Your task to perform on an android device: Open Google Chrome and click the shortcut for Amazon.com Image 0: 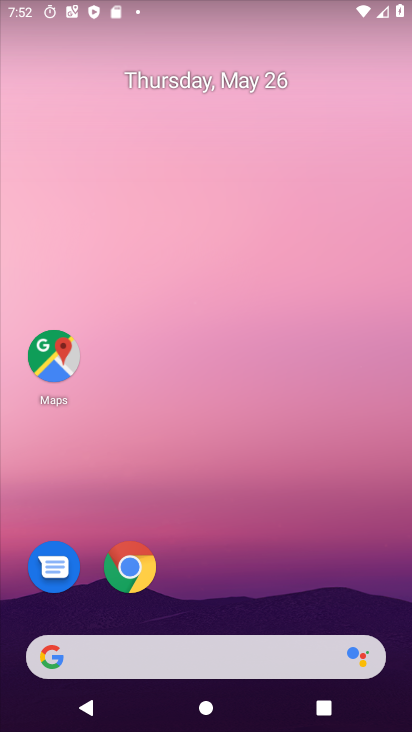
Step 0: press home button
Your task to perform on an android device: Open Google Chrome and click the shortcut for Amazon.com Image 1: 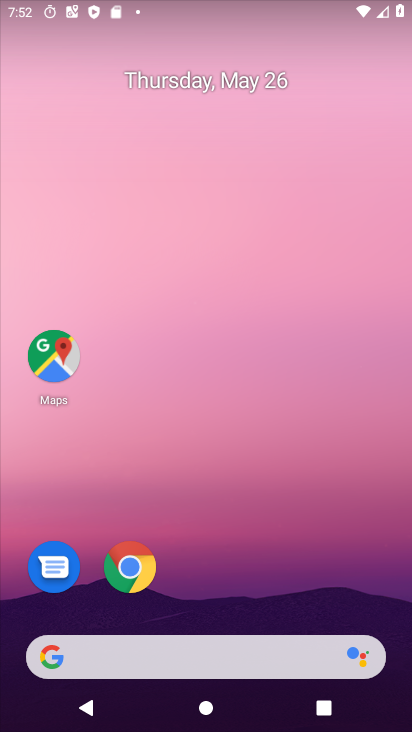
Step 1: click (133, 579)
Your task to perform on an android device: Open Google Chrome and click the shortcut for Amazon.com Image 2: 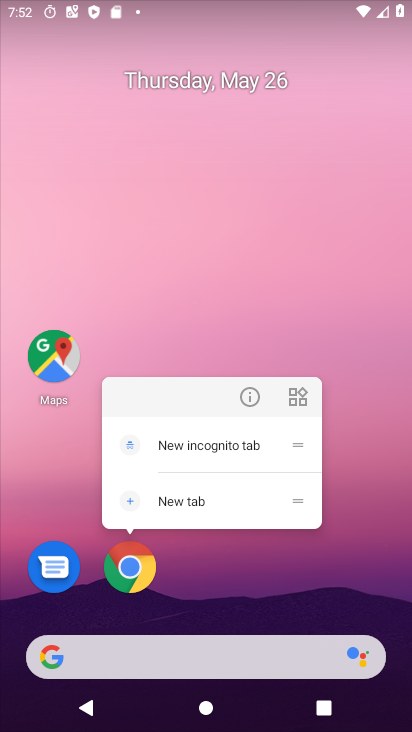
Step 2: click (122, 578)
Your task to perform on an android device: Open Google Chrome and click the shortcut for Amazon.com Image 3: 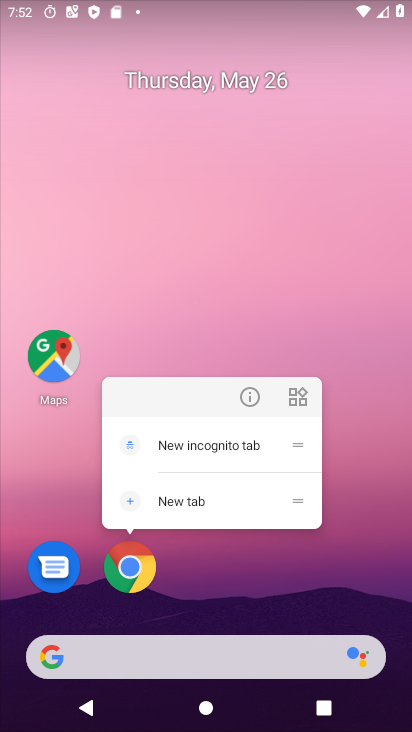
Step 3: click (137, 561)
Your task to perform on an android device: Open Google Chrome and click the shortcut for Amazon.com Image 4: 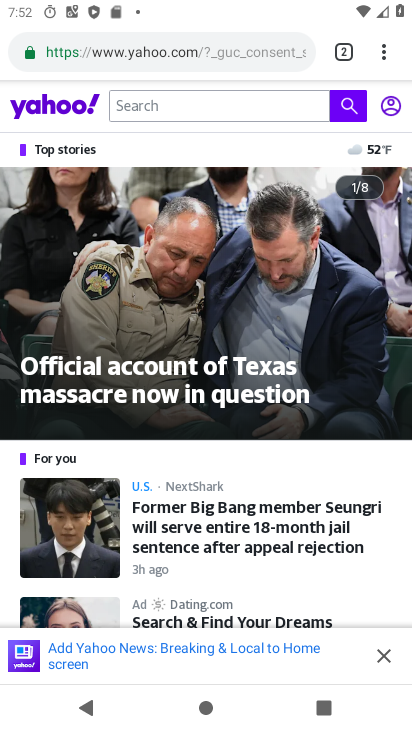
Step 4: drag from (384, 54) to (275, 104)
Your task to perform on an android device: Open Google Chrome and click the shortcut for Amazon.com Image 5: 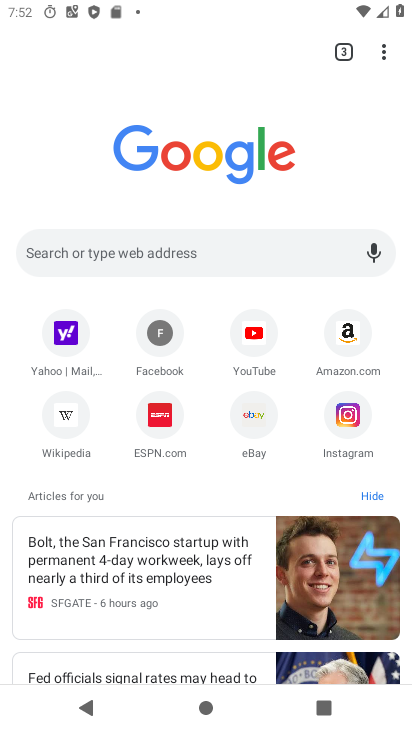
Step 5: click (348, 330)
Your task to perform on an android device: Open Google Chrome and click the shortcut for Amazon.com Image 6: 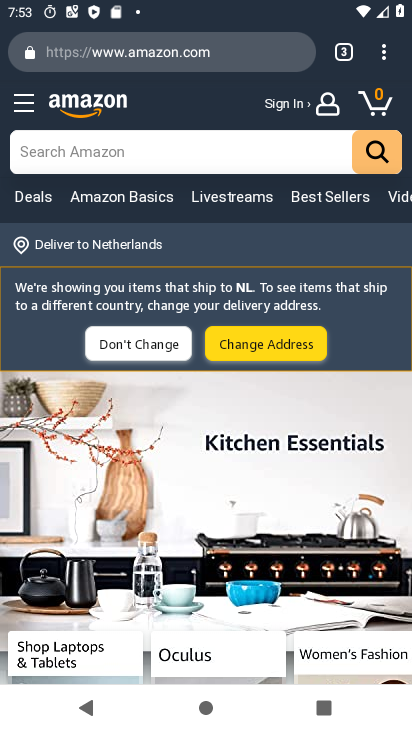
Step 6: task complete